Your task to perform on an android device: Go to eBay Image 0: 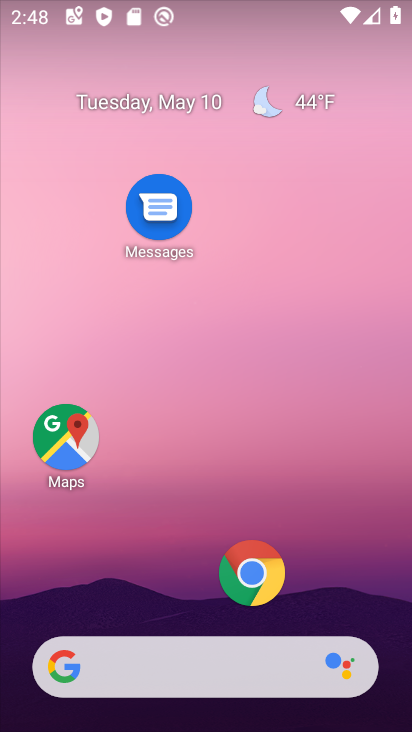
Step 0: click (241, 602)
Your task to perform on an android device: Go to eBay Image 1: 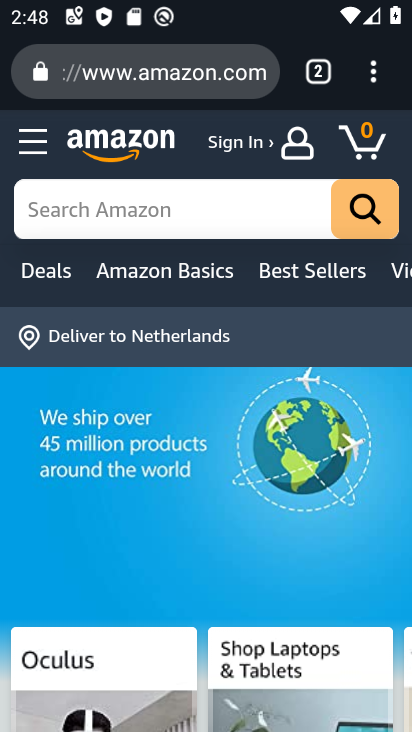
Step 1: click (309, 68)
Your task to perform on an android device: Go to eBay Image 2: 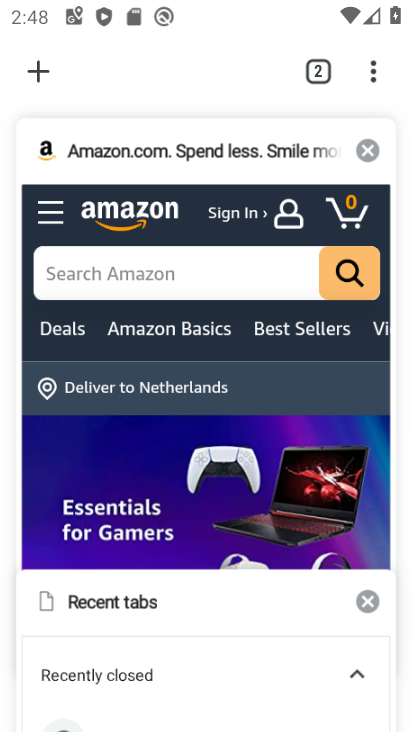
Step 2: click (31, 62)
Your task to perform on an android device: Go to eBay Image 3: 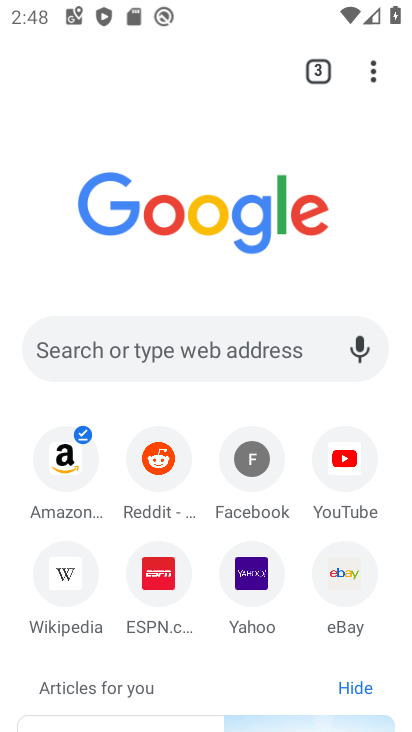
Step 3: click (331, 587)
Your task to perform on an android device: Go to eBay Image 4: 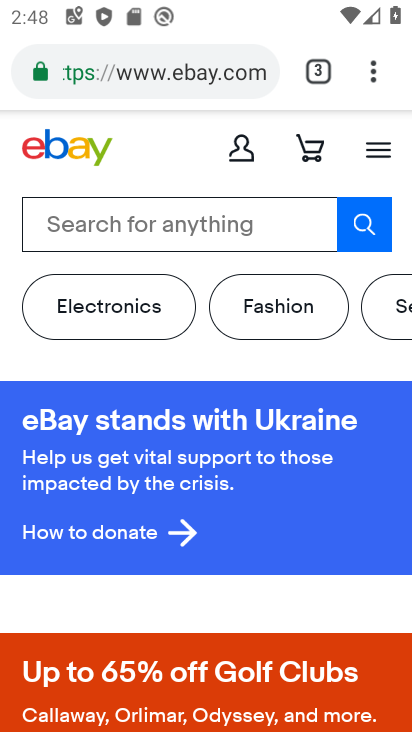
Step 4: task complete